Your task to perform on an android device: Search for "amazon basics triple a" on target.com, select the first entry, and add it to the cart. Image 0: 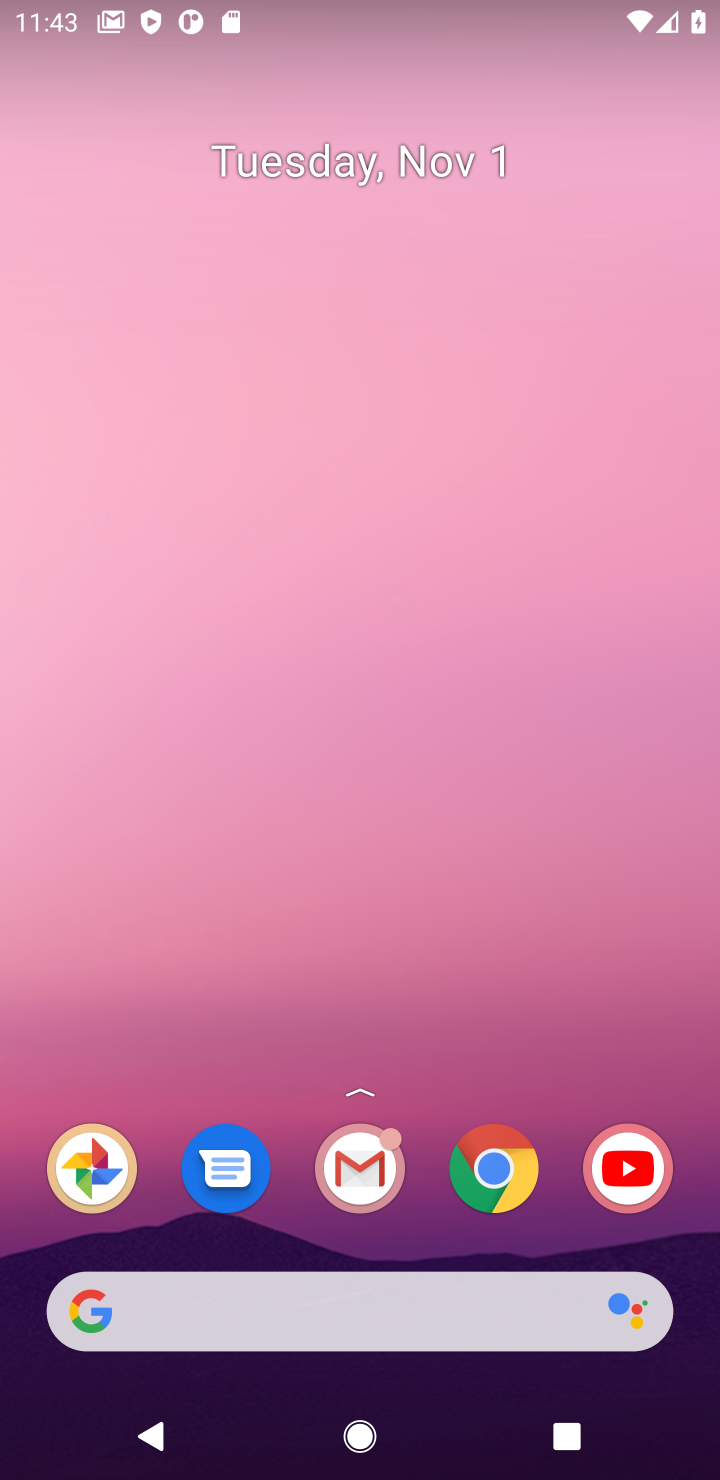
Step 0: click (481, 1159)
Your task to perform on an android device: Search for "amazon basics triple a" on target.com, select the first entry, and add it to the cart. Image 1: 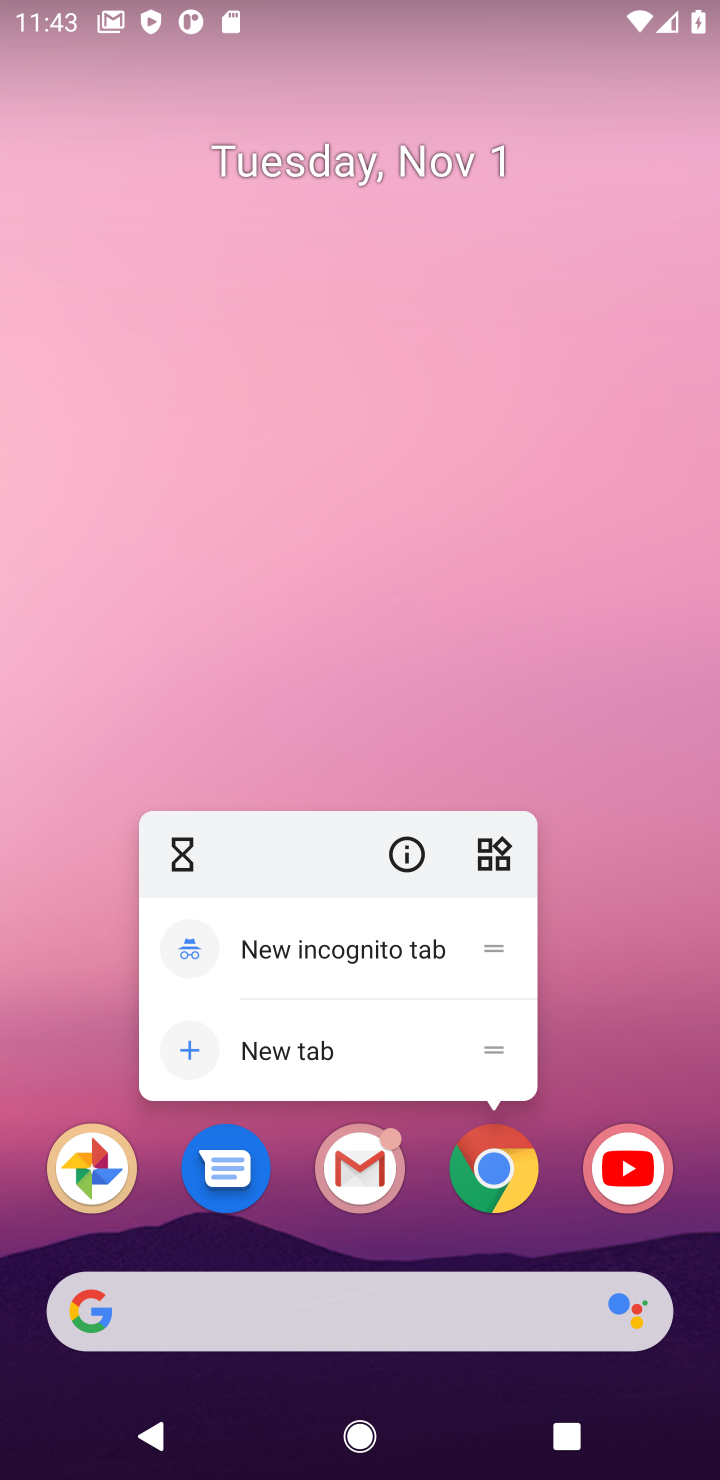
Step 1: click (514, 1152)
Your task to perform on an android device: Search for "amazon basics triple a" on target.com, select the first entry, and add it to the cart. Image 2: 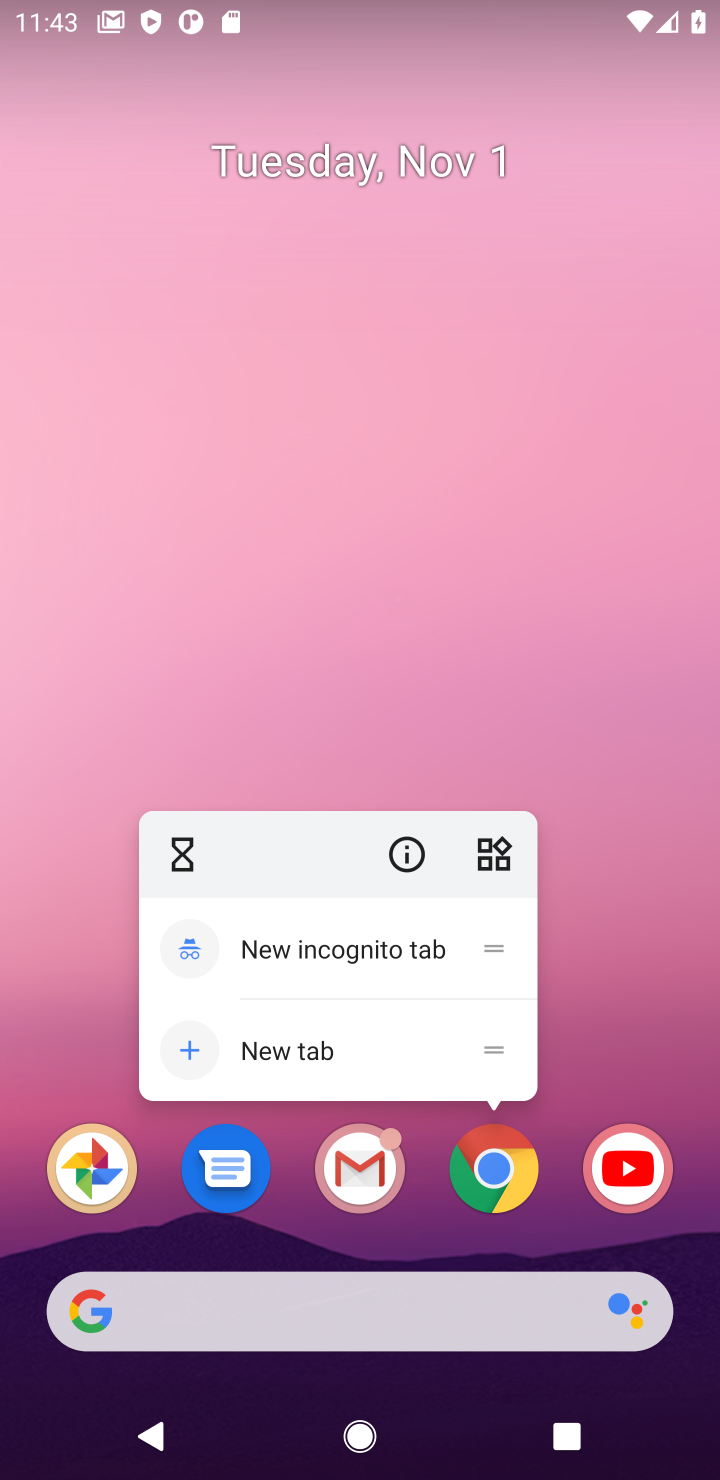
Step 2: click (514, 1152)
Your task to perform on an android device: Search for "amazon basics triple a" on target.com, select the first entry, and add it to the cart. Image 3: 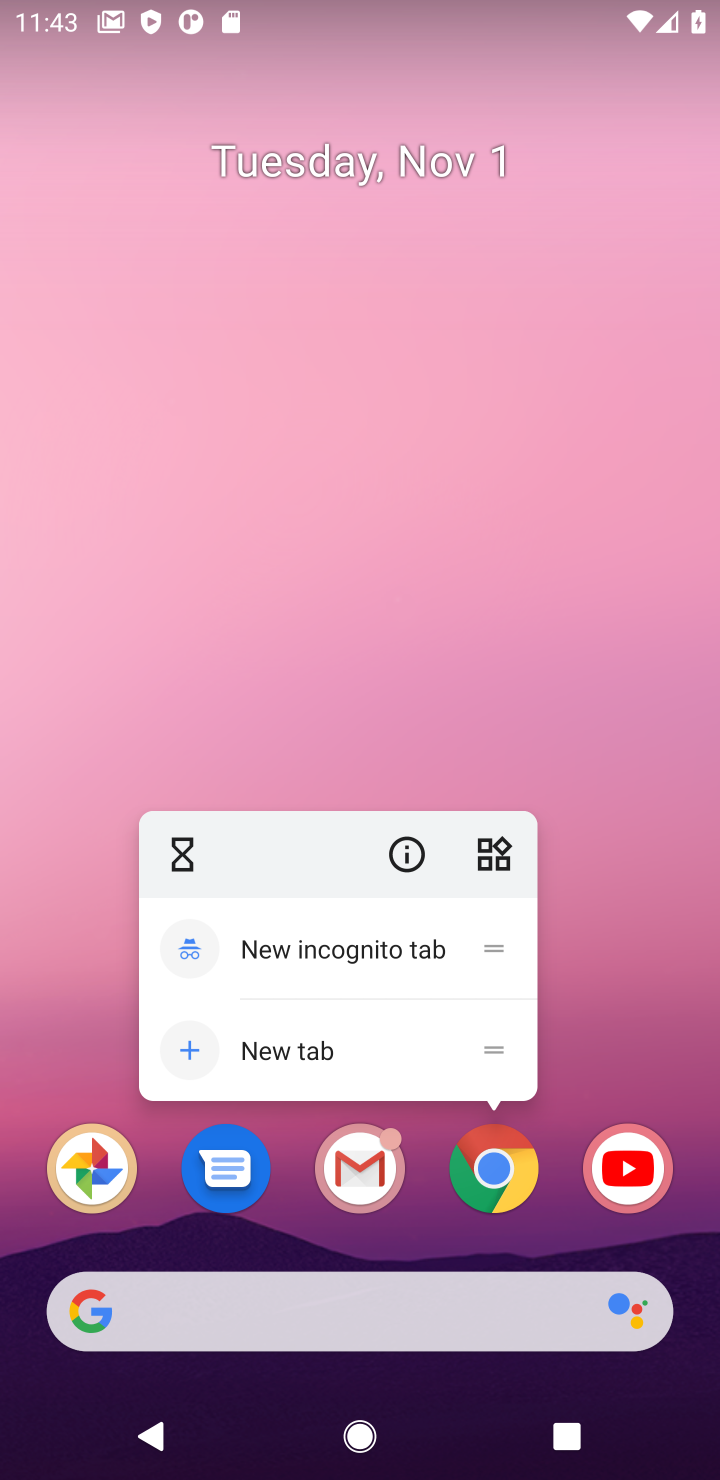
Step 3: click (480, 1147)
Your task to perform on an android device: Search for "amazon basics triple a" on target.com, select the first entry, and add it to the cart. Image 4: 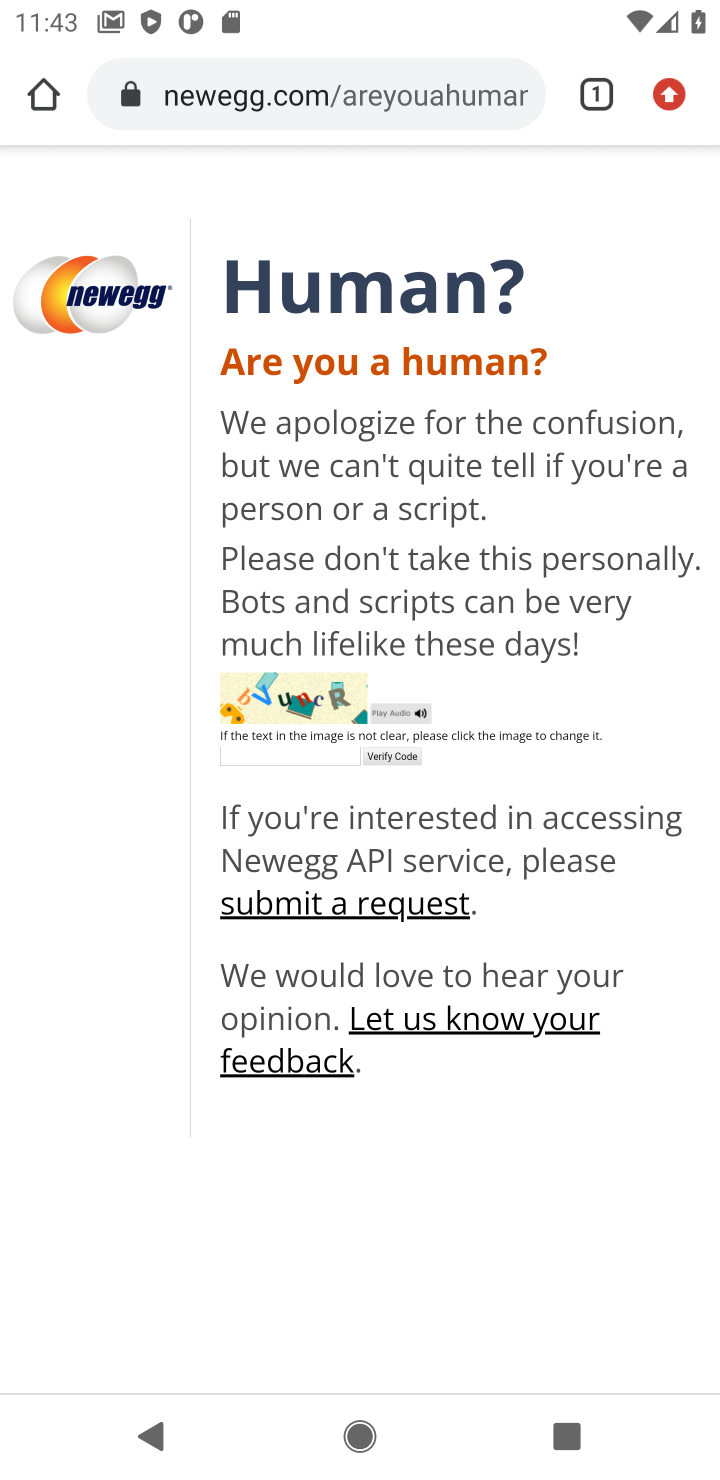
Step 4: click (392, 95)
Your task to perform on an android device: Search for "amazon basics triple a" on target.com, select the first entry, and add it to the cart. Image 5: 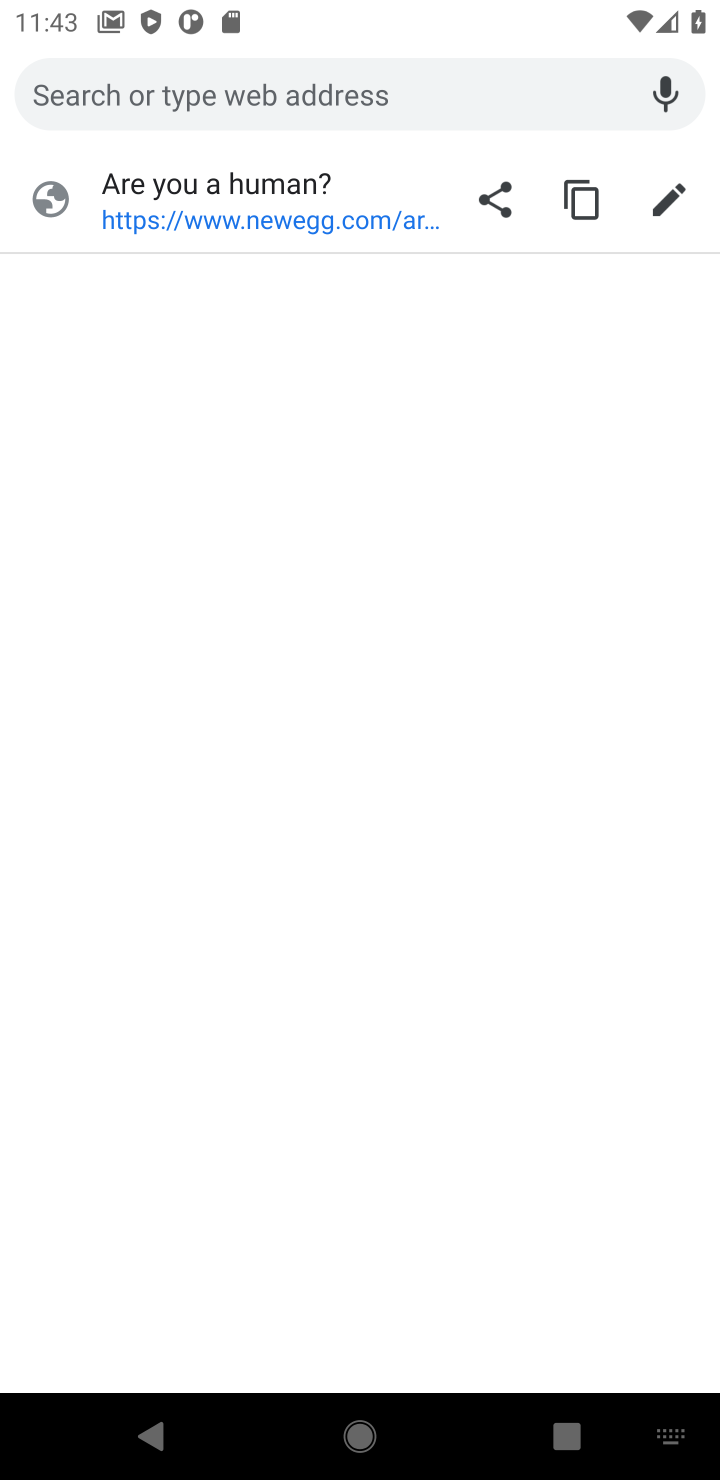
Step 5: type "target.com"
Your task to perform on an android device: Search for "amazon basics triple a" on target.com, select the first entry, and add it to the cart. Image 6: 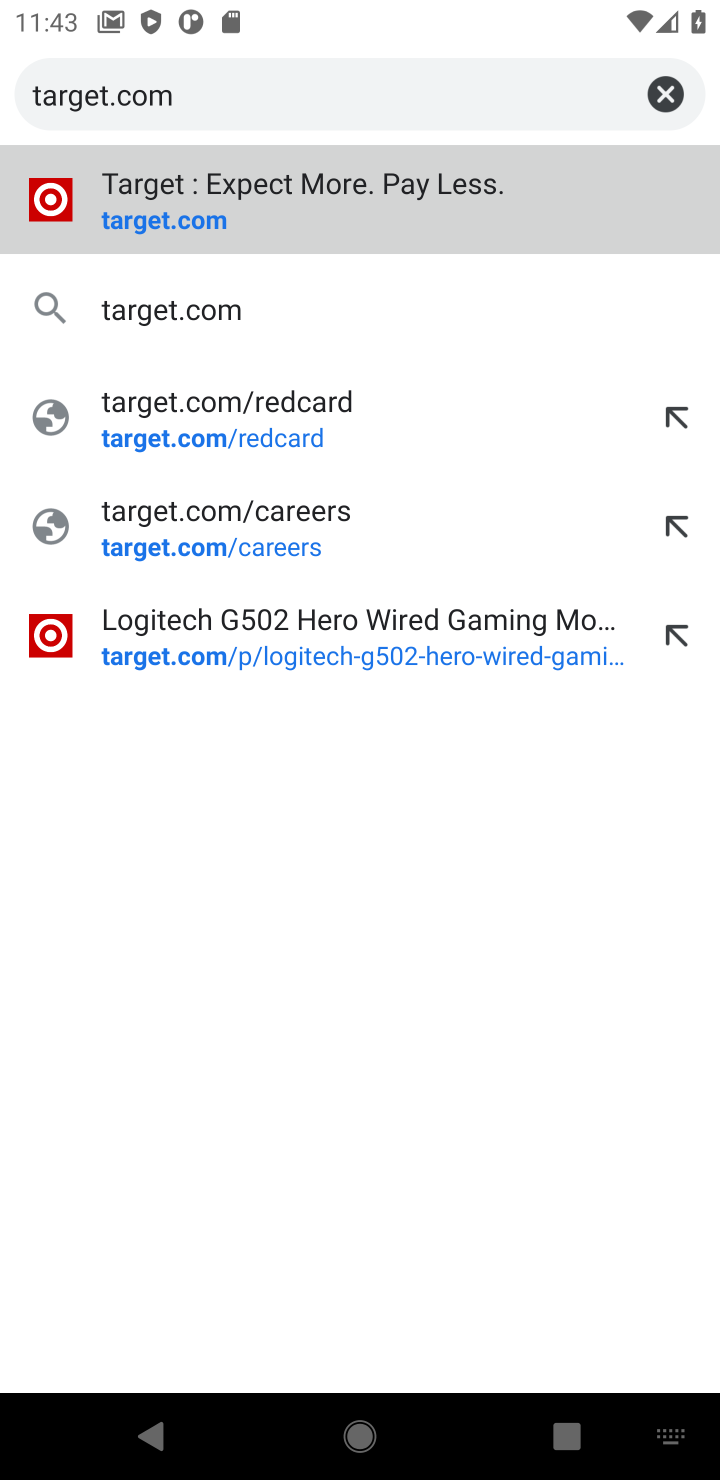
Step 6: press enter
Your task to perform on an android device: Search for "amazon basics triple a" on target.com, select the first entry, and add it to the cart. Image 7: 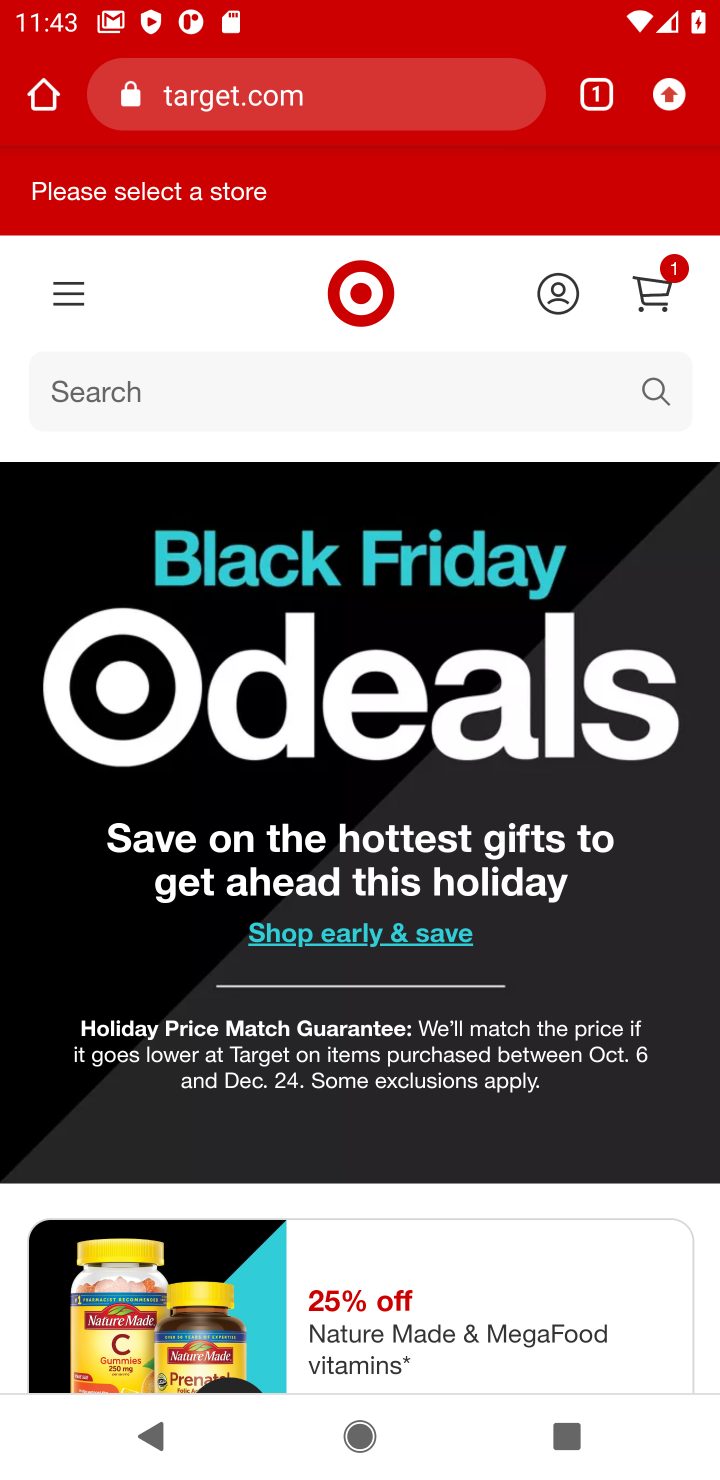
Step 7: click (648, 384)
Your task to perform on an android device: Search for "amazon basics triple a" on target.com, select the first entry, and add it to the cart. Image 8: 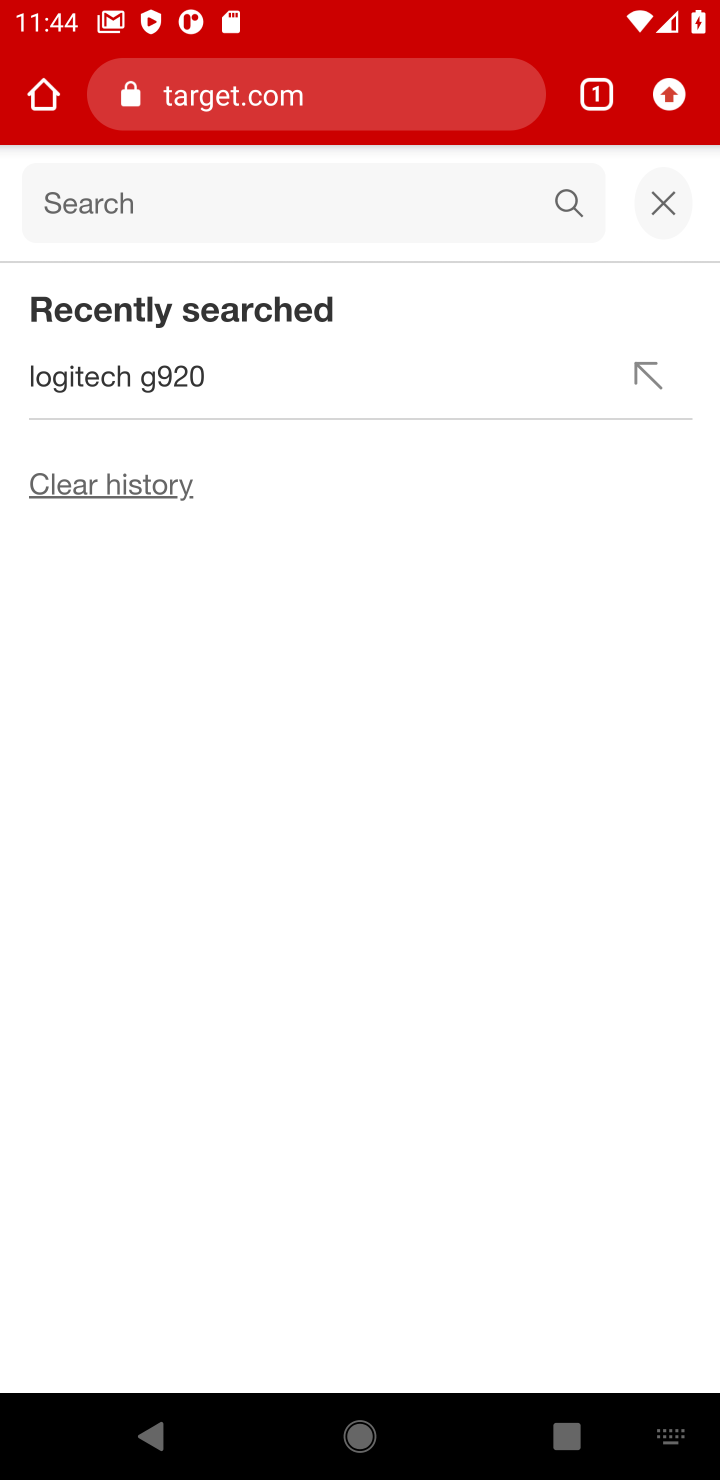
Step 8: type "amazon basics triple a"
Your task to perform on an android device: Search for "amazon basics triple a" on target.com, select the first entry, and add it to the cart. Image 9: 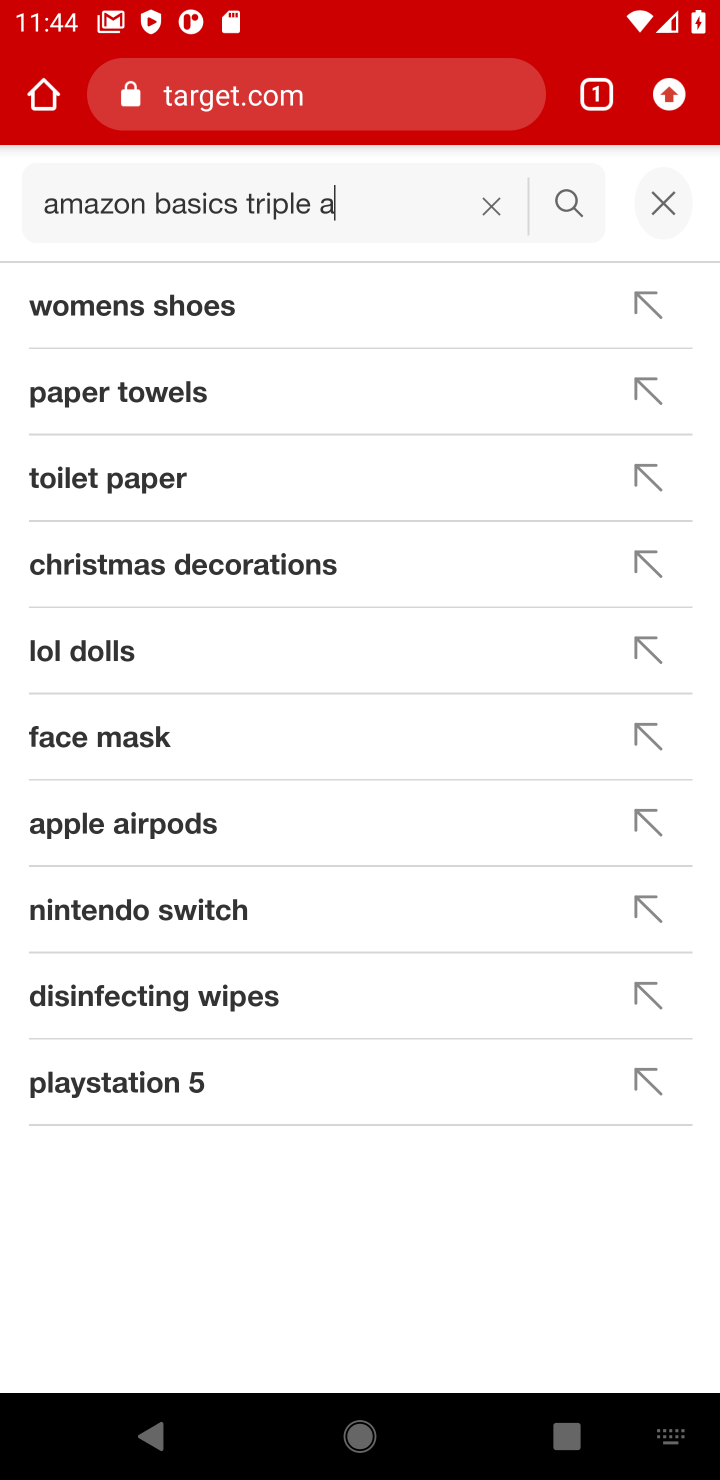
Step 9: press enter
Your task to perform on an android device: Search for "amazon basics triple a" on target.com, select the first entry, and add it to the cart. Image 10: 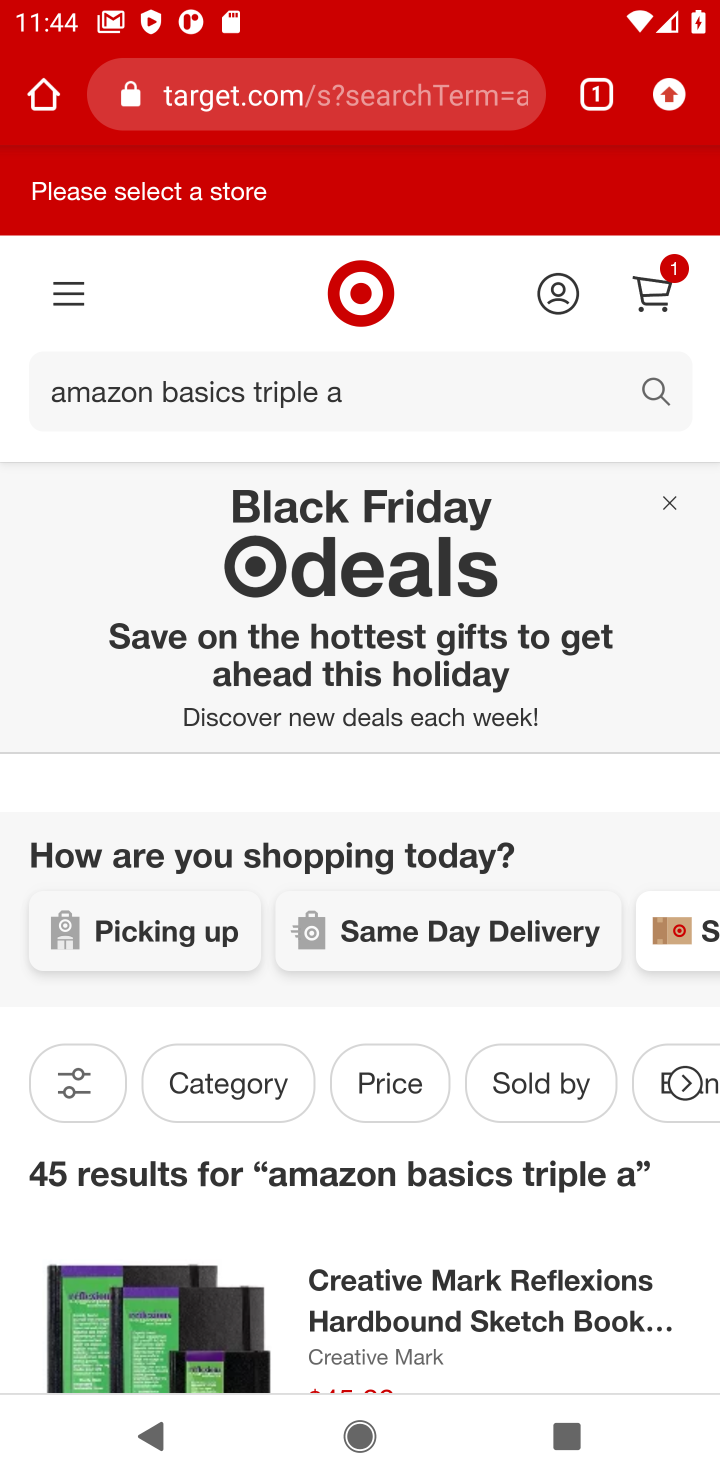
Step 10: drag from (381, 1221) to (366, 916)
Your task to perform on an android device: Search for "amazon basics triple a" on target.com, select the first entry, and add it to the cart. Image 11: 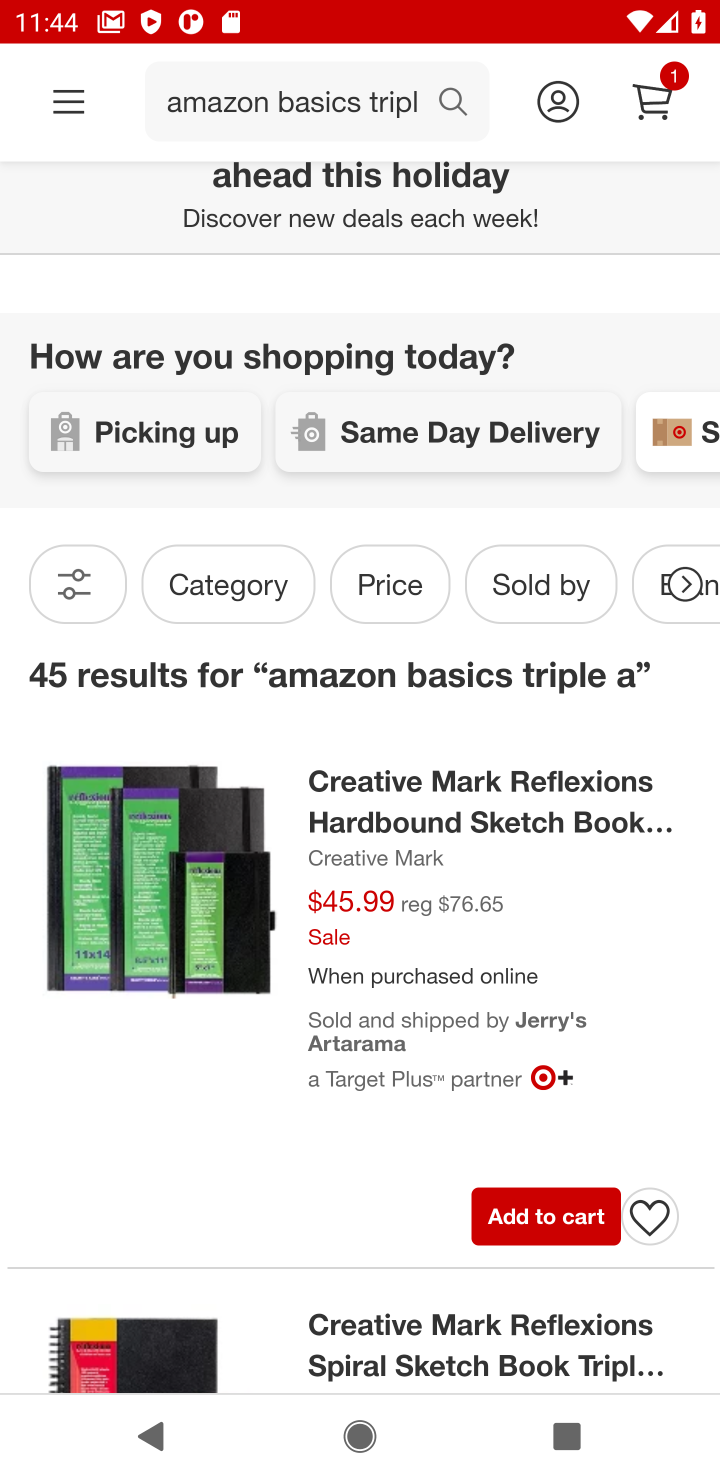
Step 11: drag from (496, 321) to (589, 899)
Your task to perform on an android device: Search for "amazon basics triple a" on target.com, select the first entry, and add it to the cart. Image 12: 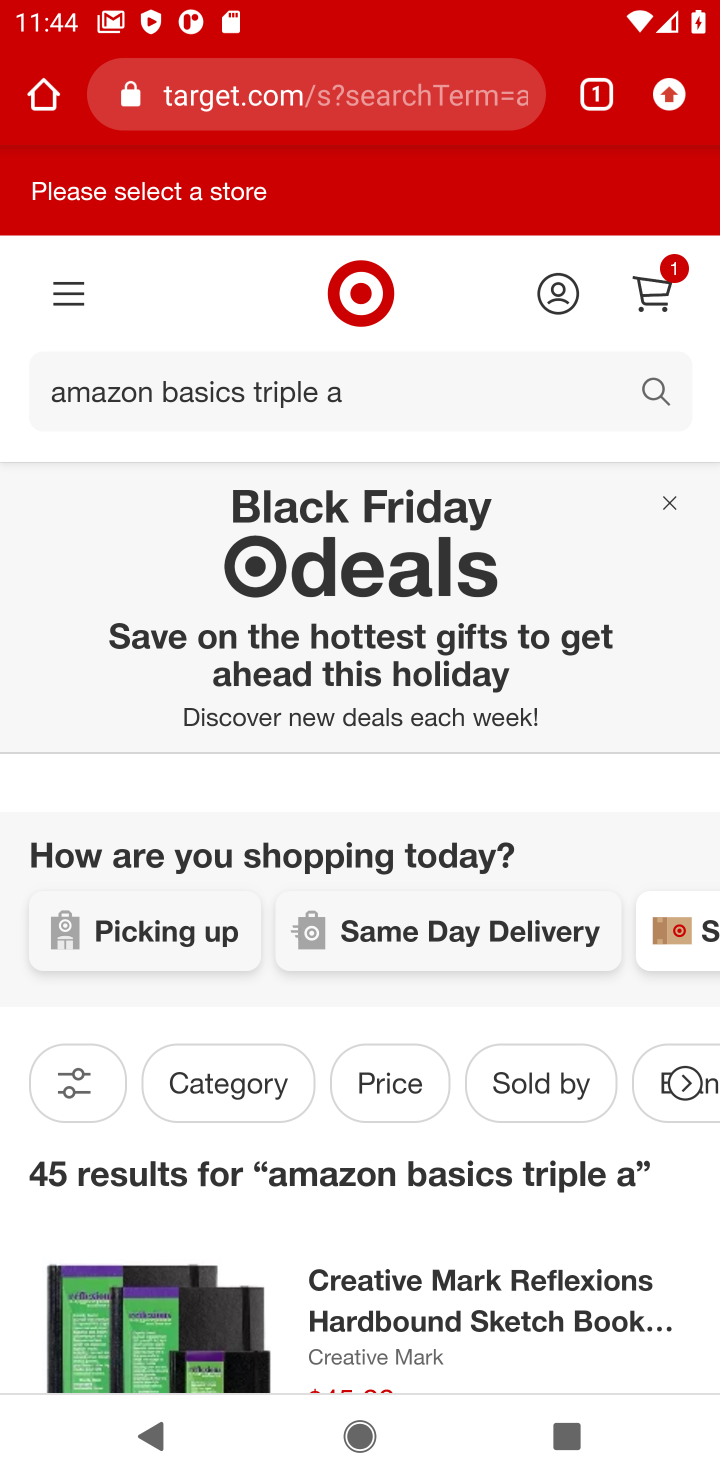
Step 12: drag from (520, 851) to (491, 373)
Your task to perform on an android device: Search for "amazon basics triple a" on target.com, select the first entry, and add it to the cart. Image 13: 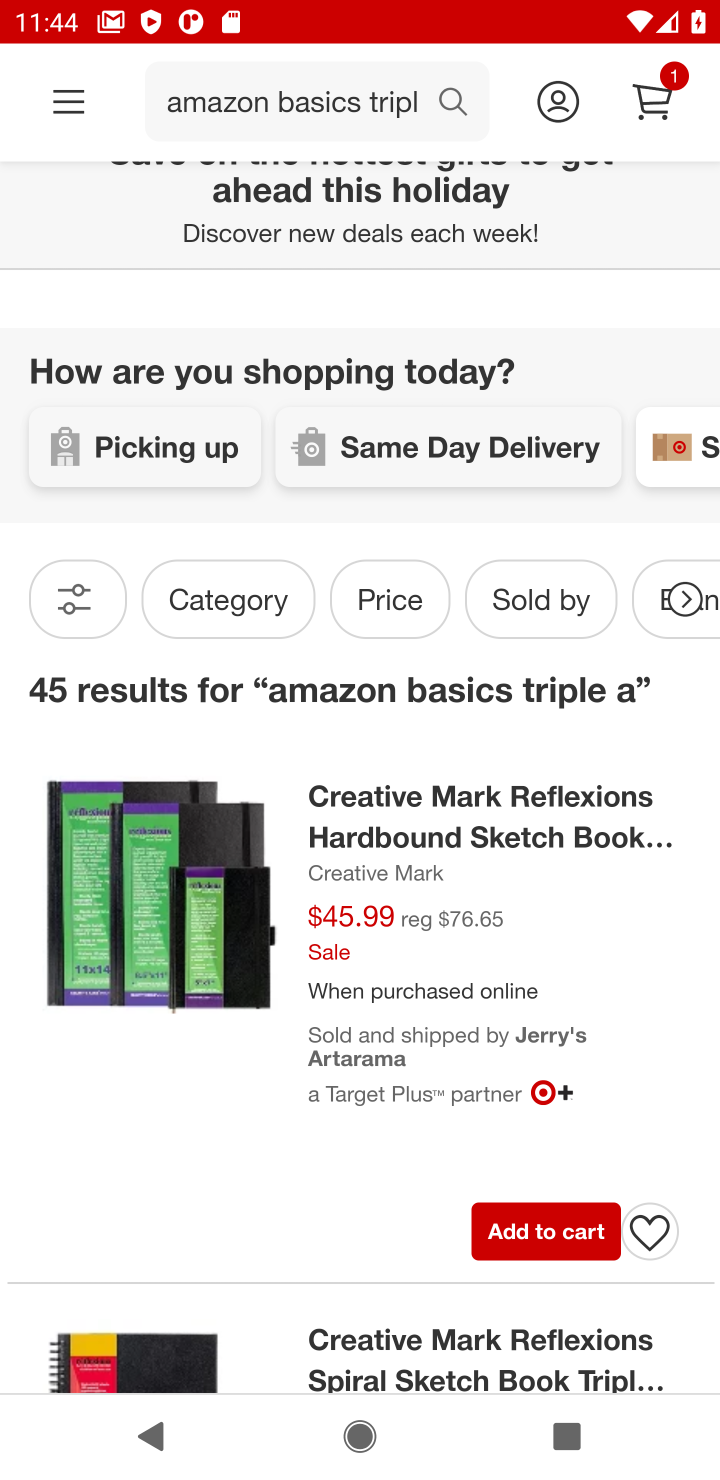
Step 13: drag from (487, 997) to (448, 534)
Your task to perform on an android device: Search for "amazon basics triple a" on target.com, select the first entry, and add it to the cart. Image 14: 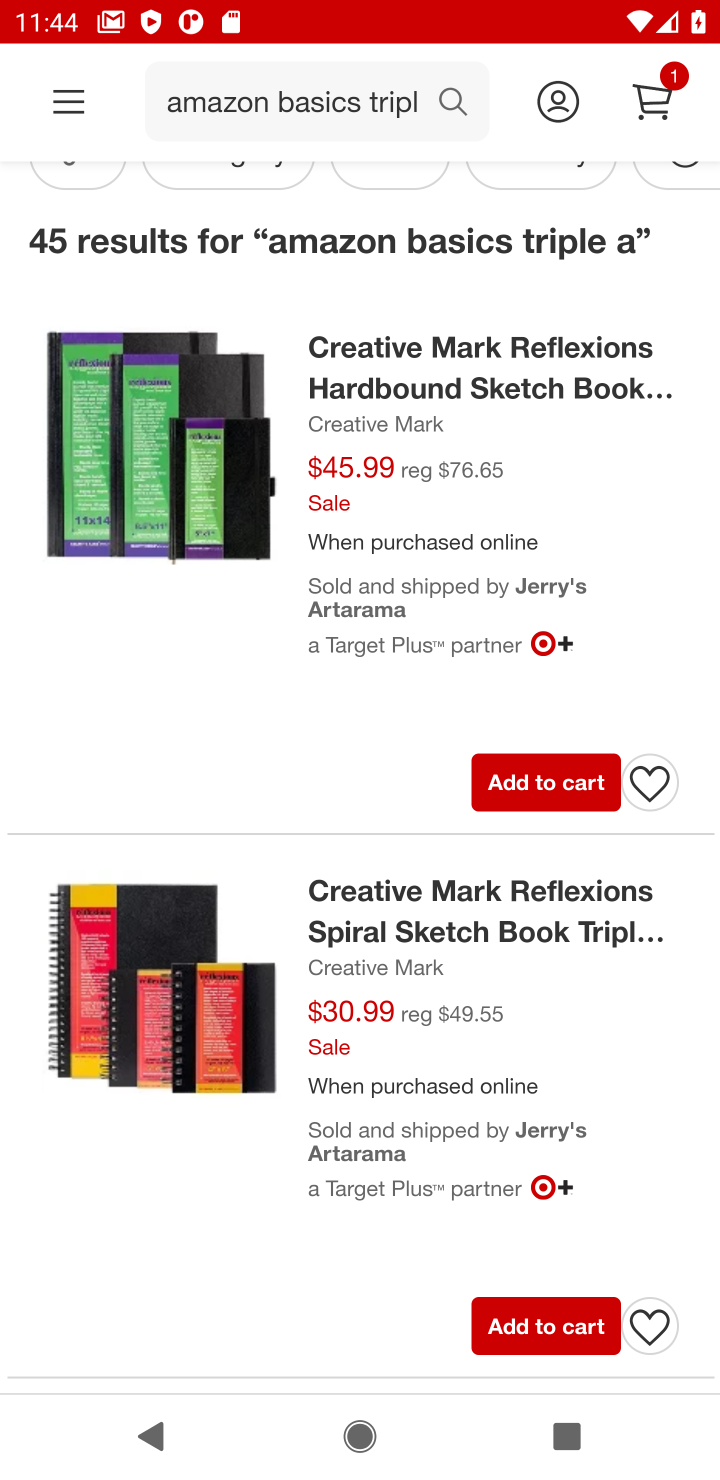
Step 14: drag from (448, 968) to (435, 577)
Your task to perform on an android device: Search for "amazon basics triple a" on target.com, select the first entry, and add it to the cart. Image 15: 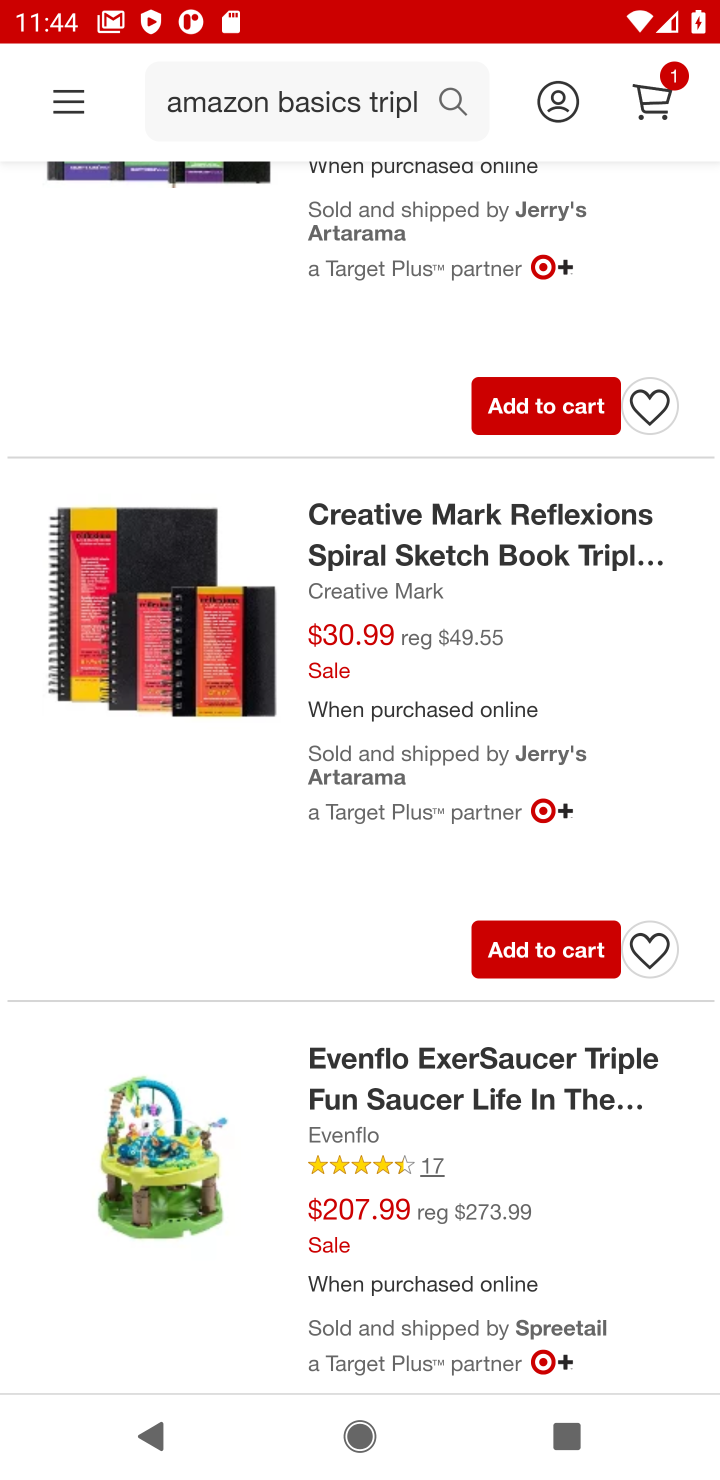
Step 15: drag from (464, 1081) to (451, 788)
Your task to perform on an android device: Search for "amazon basics triple a" on target.com, select the first entry, and add it to the cart. Image 16: 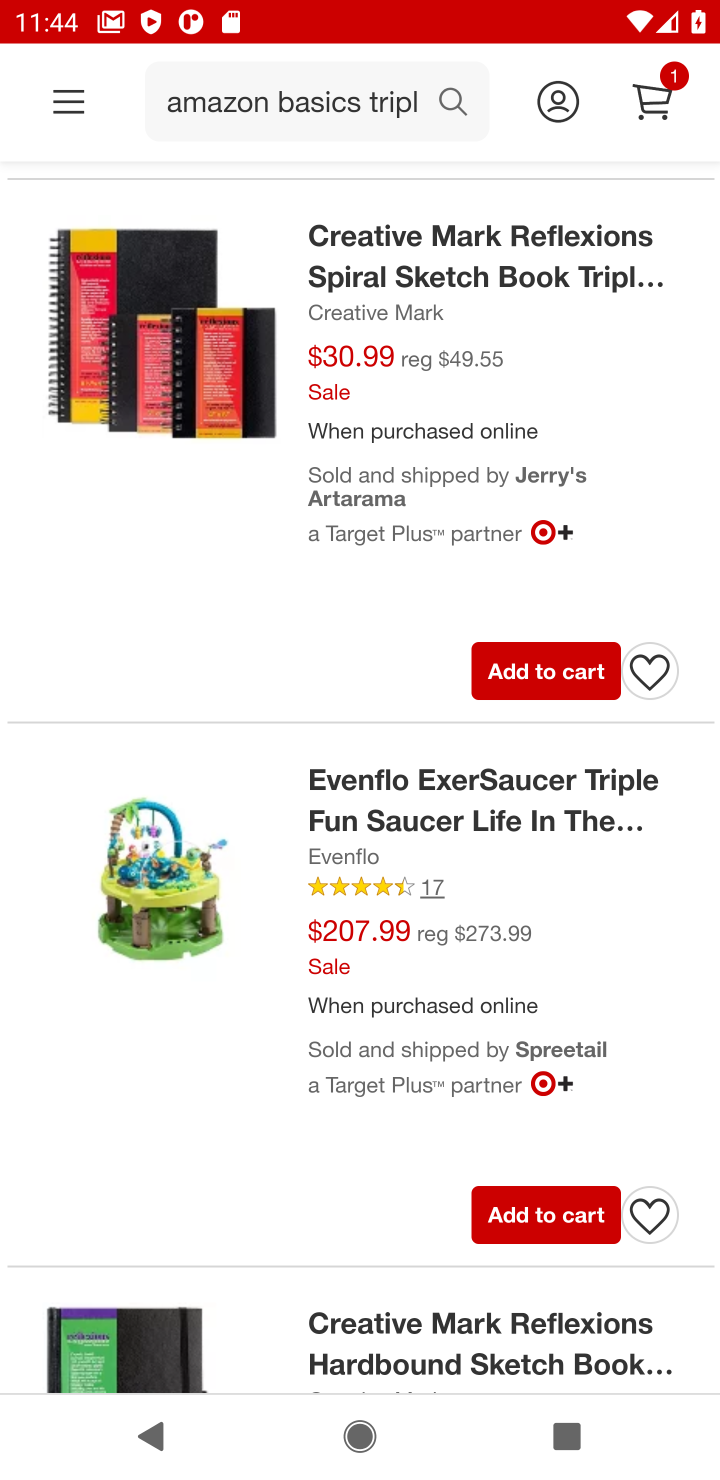
Step 16: drag from (404, 598) to (422, 1041)
Your task to perform on an android device: Search for "amazon basics triple a" on target.com, select the first entry, and add it to the cart. Image 17: 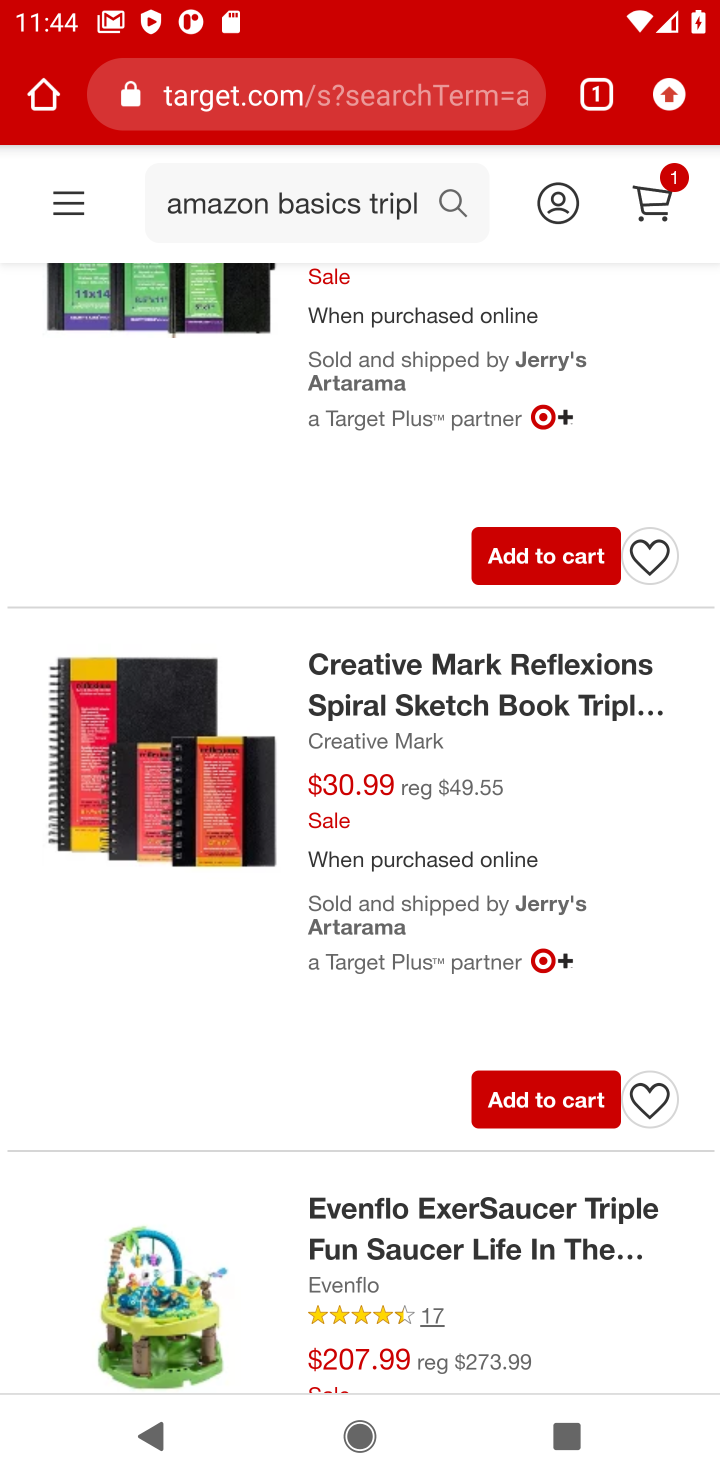
Step 17: drag from (326, 699) to (402, 1139)
Your task to perform on an android device: Search for "amazon basics triple a" on target.com, select the first entry, and add it to the cart. Image 18: 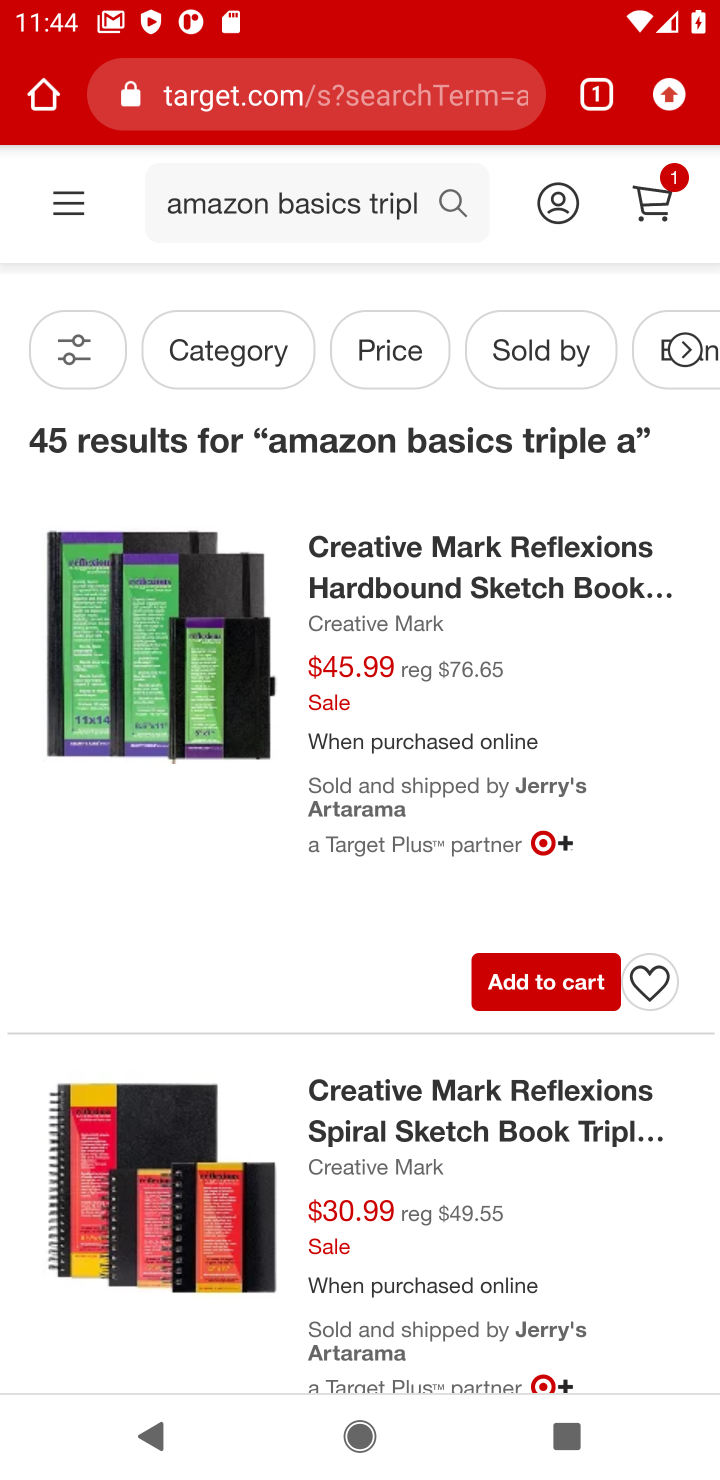
Step 18: click (447, 572)
Your task to perform on an android device: Search for "amazon basics triple a" on target.com, select the first entry, and add it to the cart. Image 19: 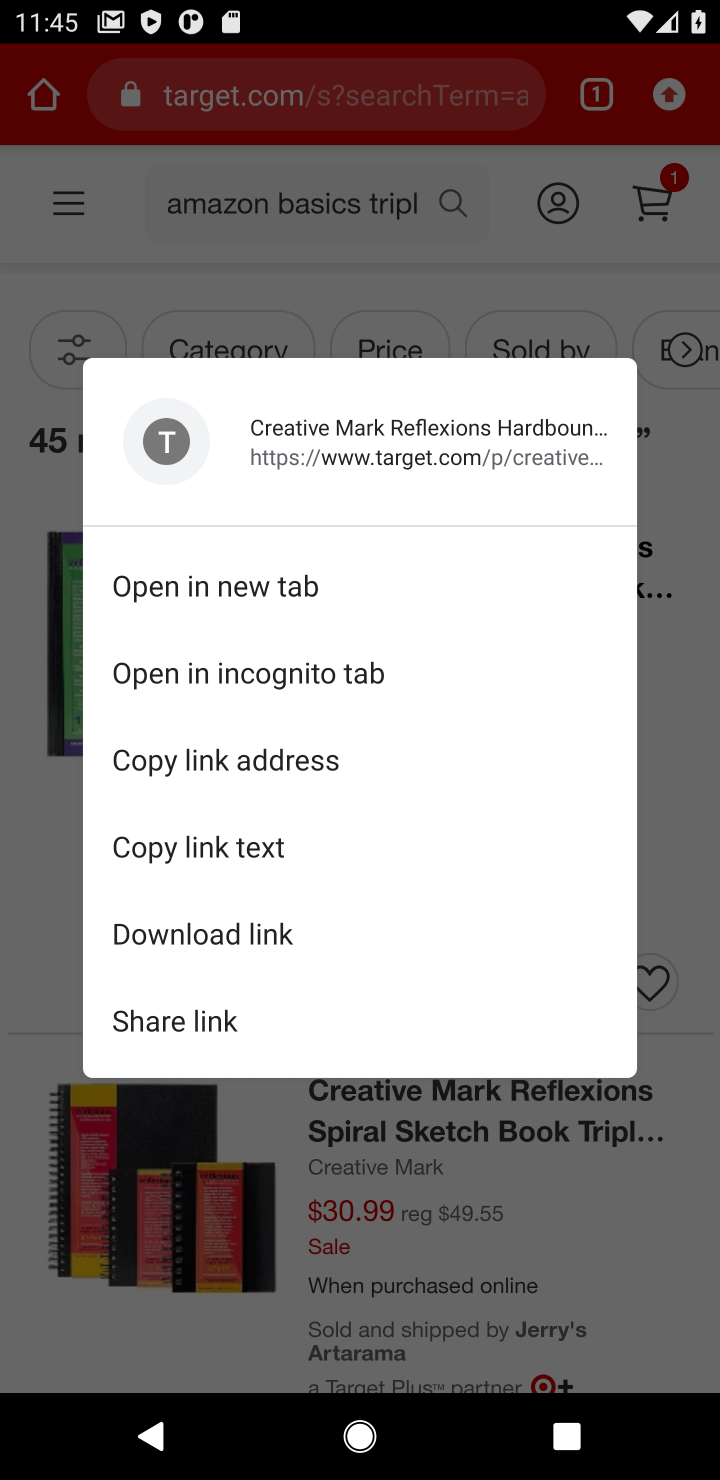
Step 19: click (638, 1238)
Your task to perform on an android device: Search for "amazon basics triple a" on target.com, select the first entry, and add it to the cart. Image 20: 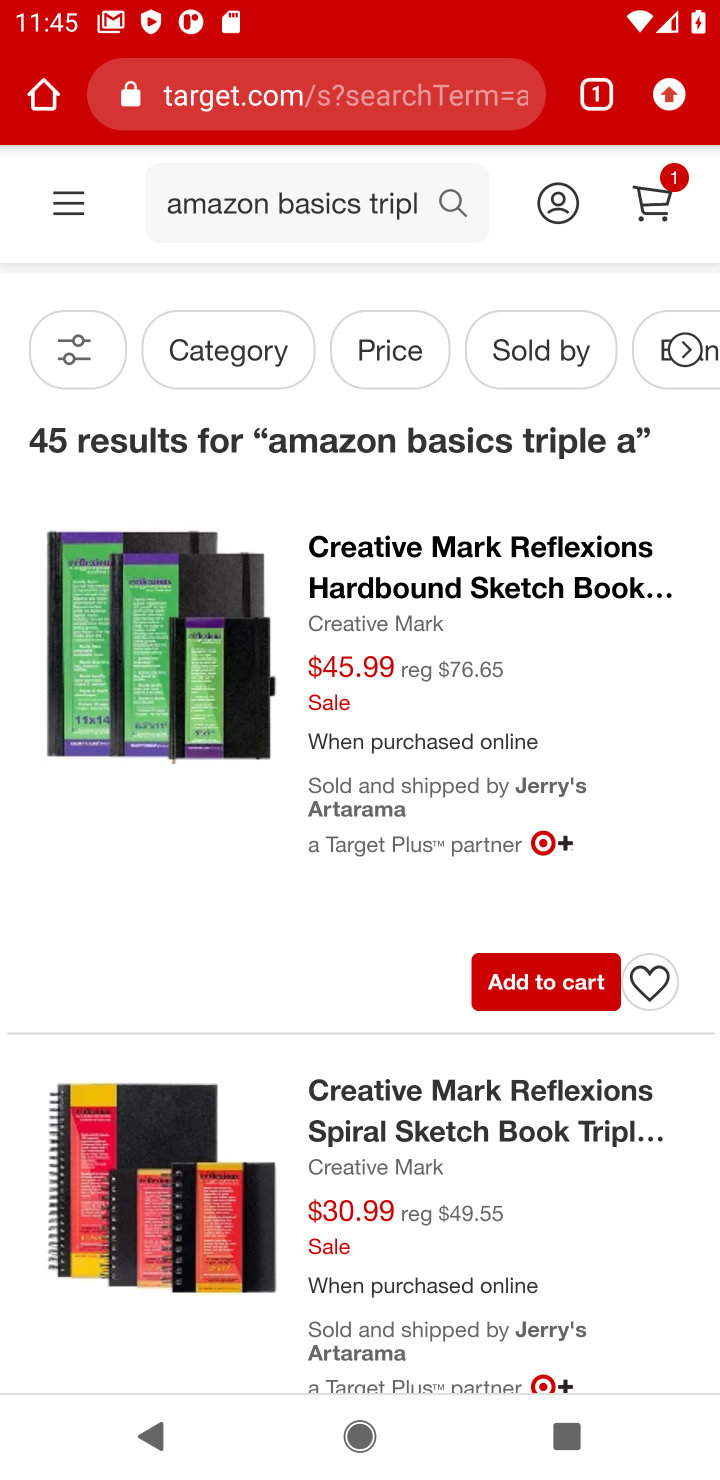
Step 20: click (405, 571)
Your task to perform on an android device: Search for "amazon basics triple a" on target.com, select the first entry, and add it to the cart. Image 21: 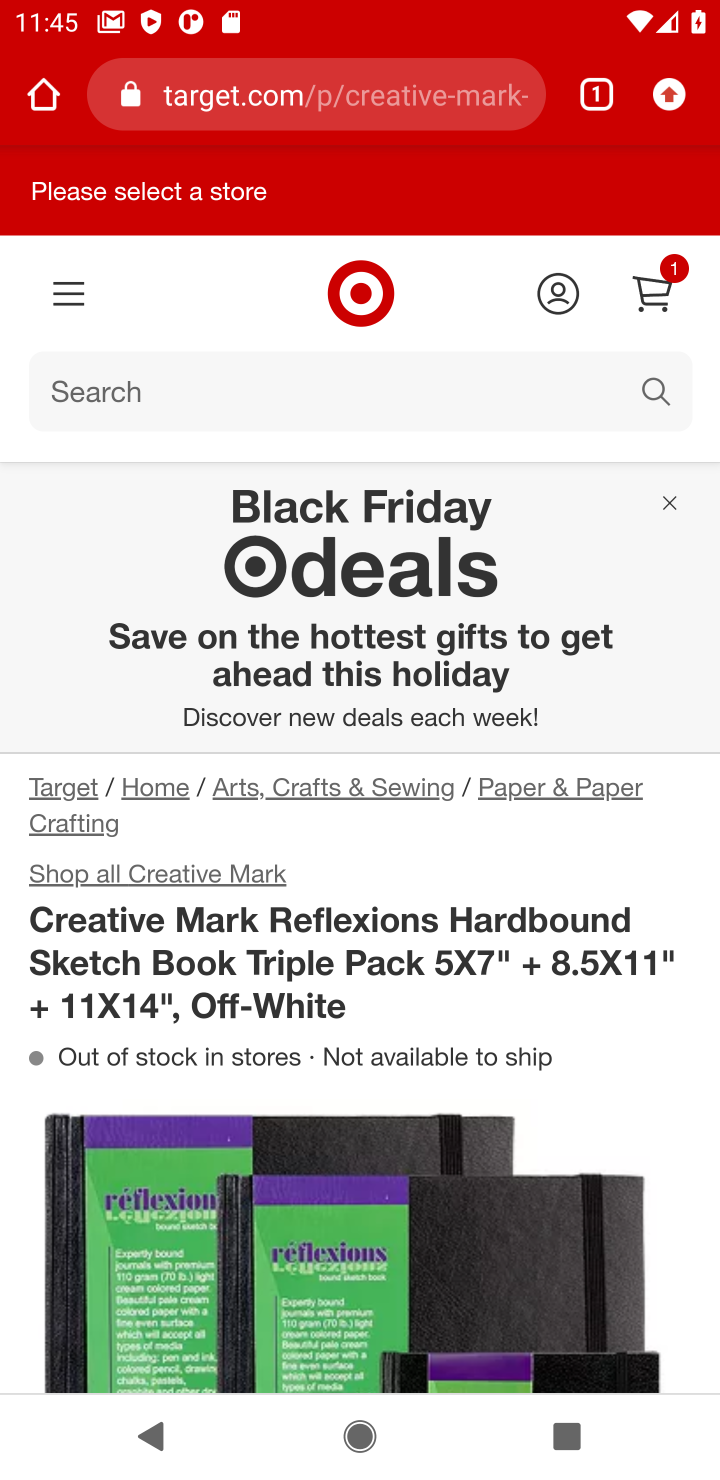
Step 21: drag from (550, 1129) to (561, 541)
Your task to perform on an android device: Search for "amazon basics triple a" on target.com, select the first entry, and add it to the cart. Image 22: 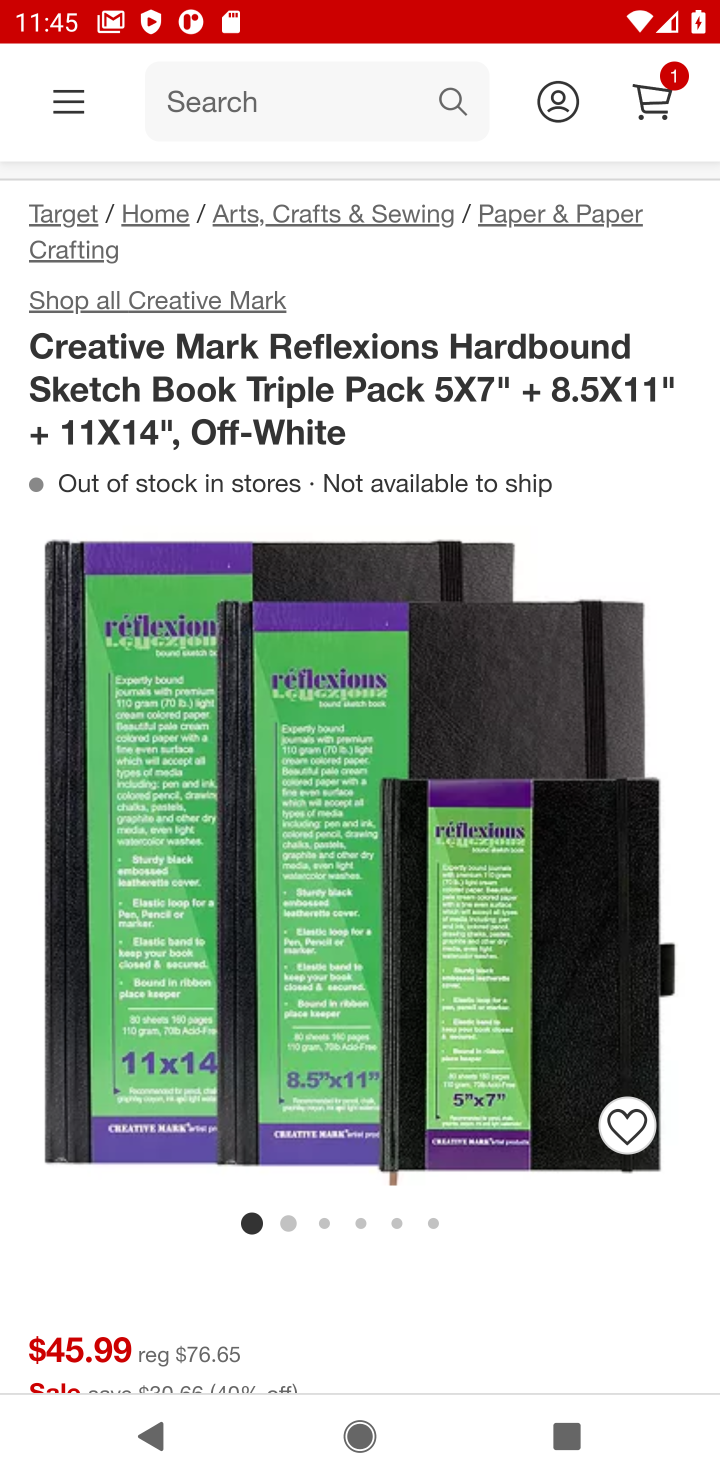
Step 22: drag from (576, 988) to (575, 669)
Your task to perform on an android device: Search for "amazon basics triple a" on target.com, select the first entry, and add it to the cart. Image 23: 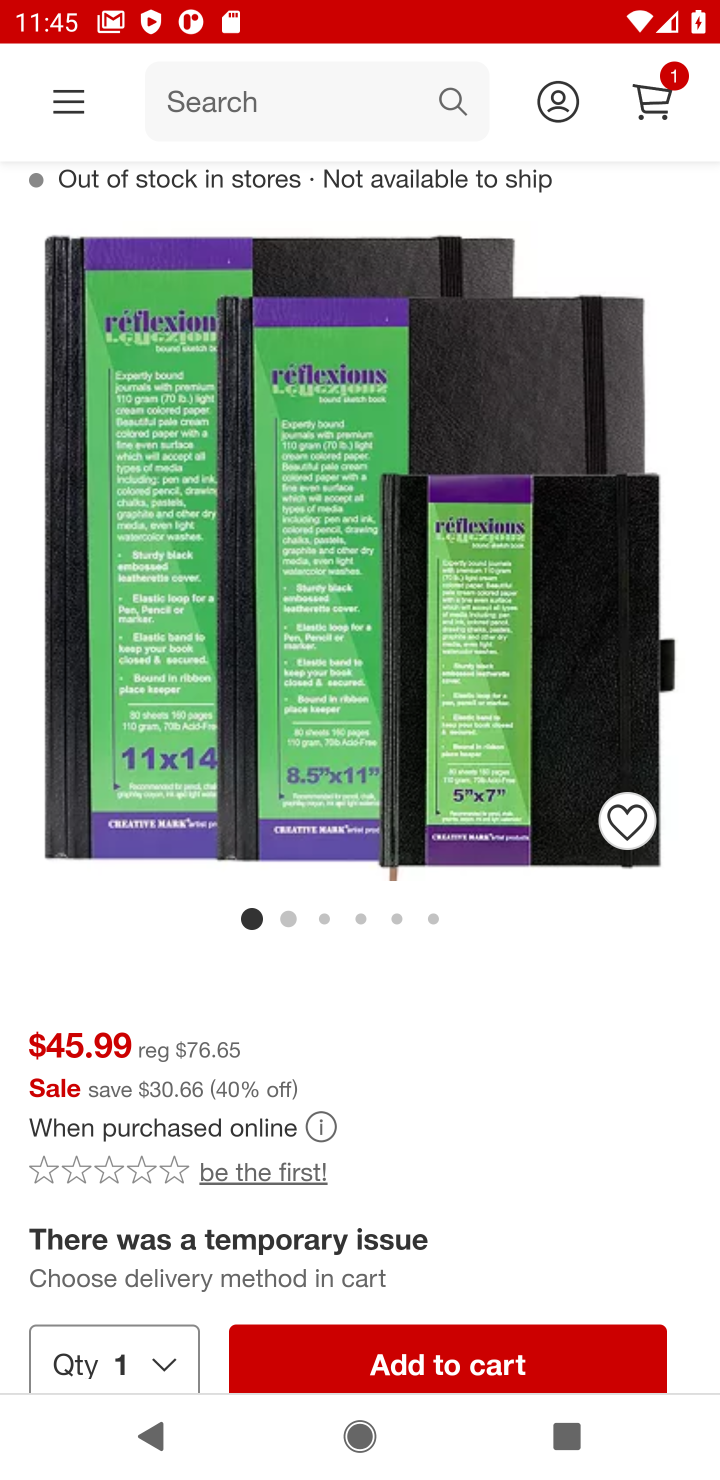
Step 23: click (511, 1336)
Your task to perform on an android device: Search for "amazon basics triple a" on target.com, select the first entry, and add it to the cart. Image 24: 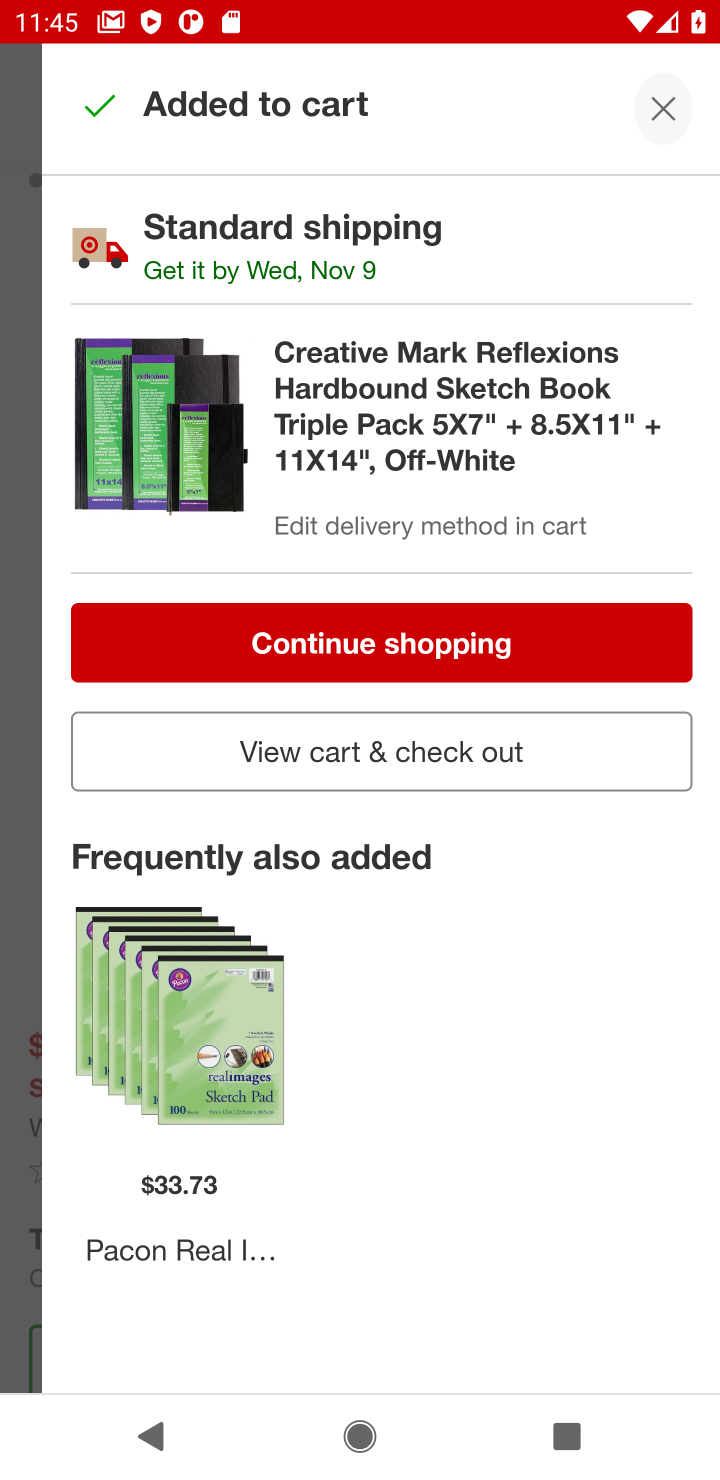
Step 24: task complete